Your task to perform on an android device: delete the emails in spam in the gmail app Image 0: 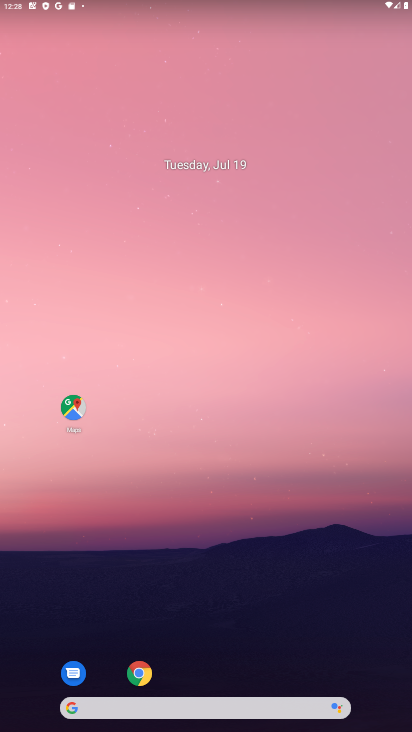
Step 0: drag from (249, 658) to (313, 160)
Your task to perform on an android device: delete the emails in spam in the gmail app Image 1: 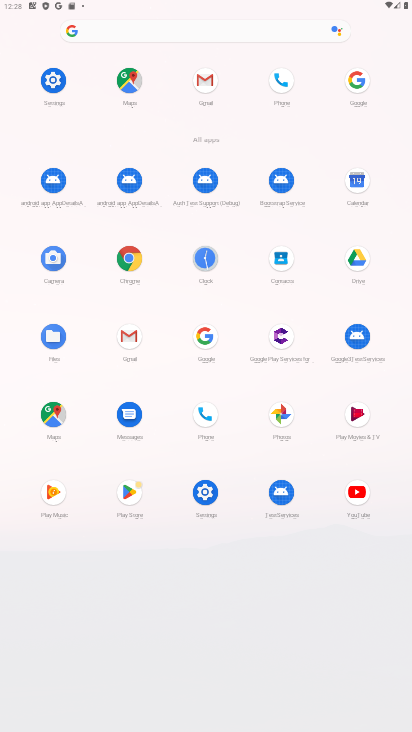
Step 1: click (211, 80)
Your task to perform on an android device: delete the emails in spam in the gmail app Image 2: 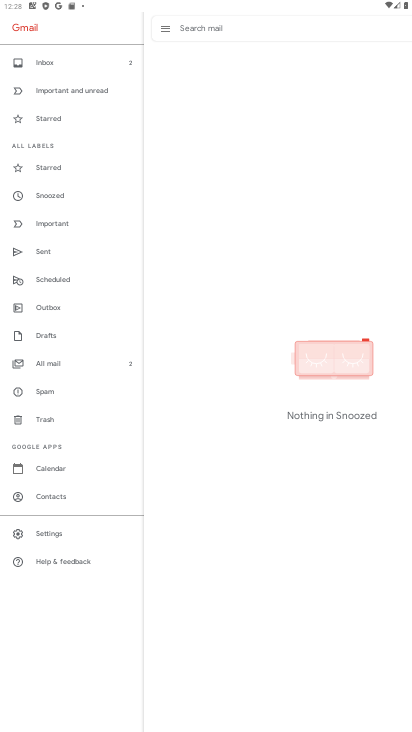
Step 2: click (49, 390)
Your task to perform on an android device: delete the emails in spam in the gmail app Image 3: 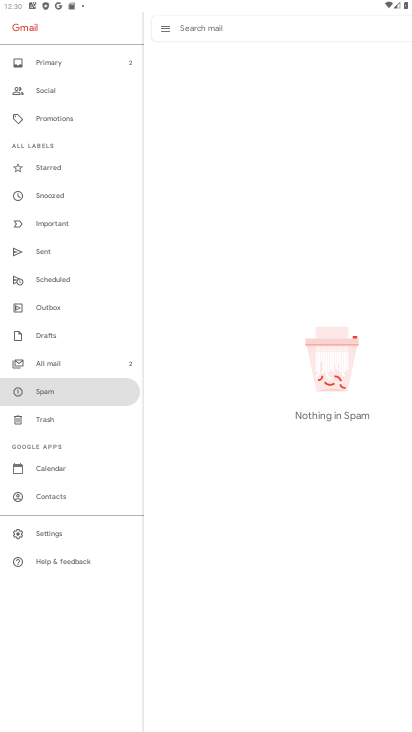
Step 3: task complete